Your task to perform on an android device: Open my contact list Image 0: 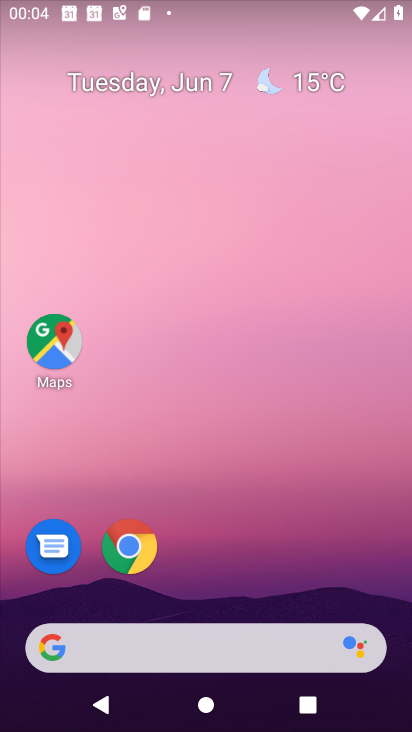
Step 0: drag from (189, 592) to (314, 10)
Your task to perform on an android device: Open my contact list Image 1: 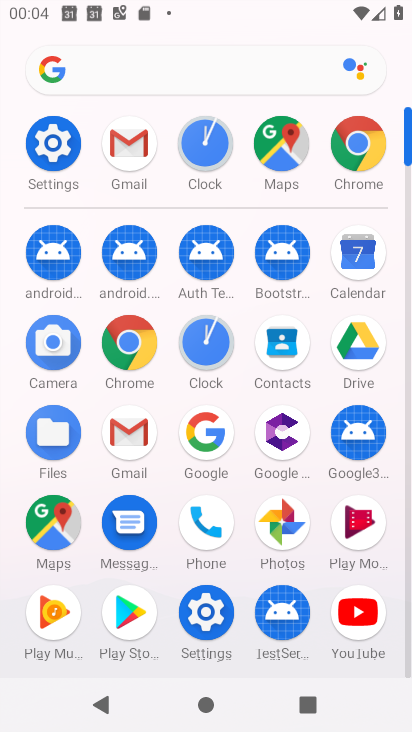
Step 1: drag from (160, 584) to (178, 440)
Your task to perform on an android device: Open my contact list Image 2: 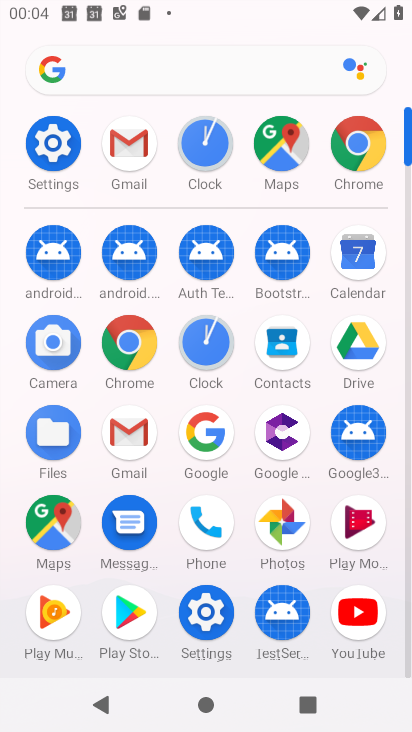
Step 2: click (282, 351)
Your task to perform on an android device: Open my contact list Image 3: 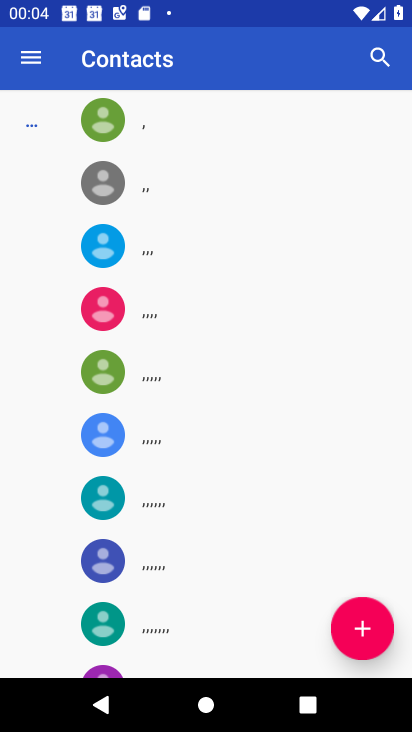
Step 3: task complete